Your task to perform on an android device: Search for vegetarian restaurants on Maps Image 0: 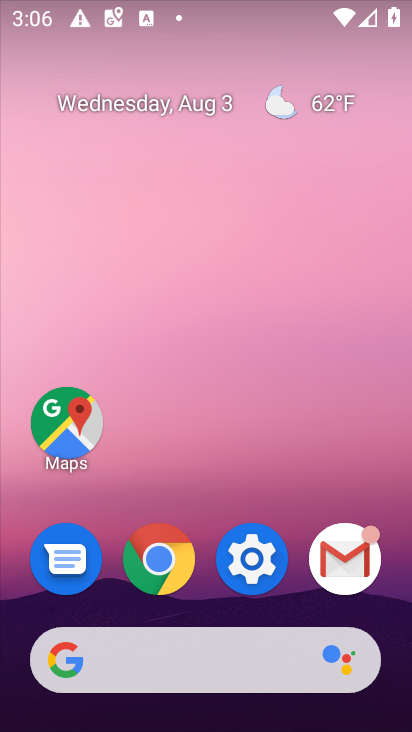
Step 0: click (94, 409)
Your task to perform on an android device: Search for vegetarian restaurants on Maps Image 1: 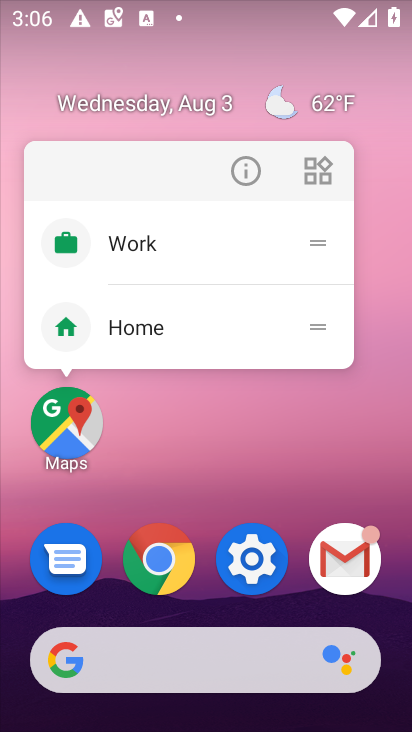
Step 1: click (85, 432)
Your task to perform on an android device: Search for vegetarian restaurants on Maps Image 2: 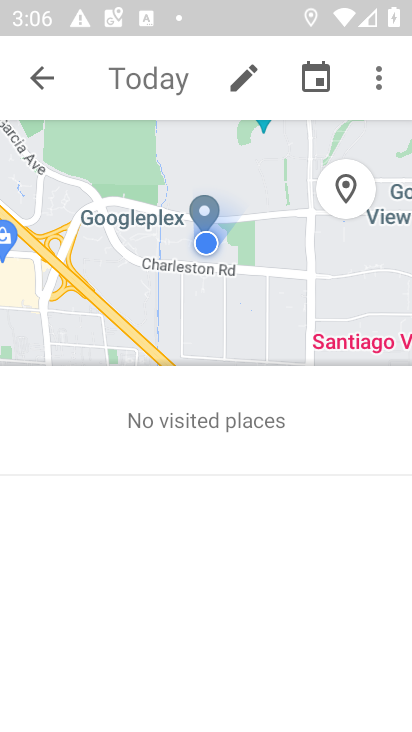
Step 2: click (49, 80)
Your task to perform on an android device: Search for vegetarian restaurants on Maps Image 3: 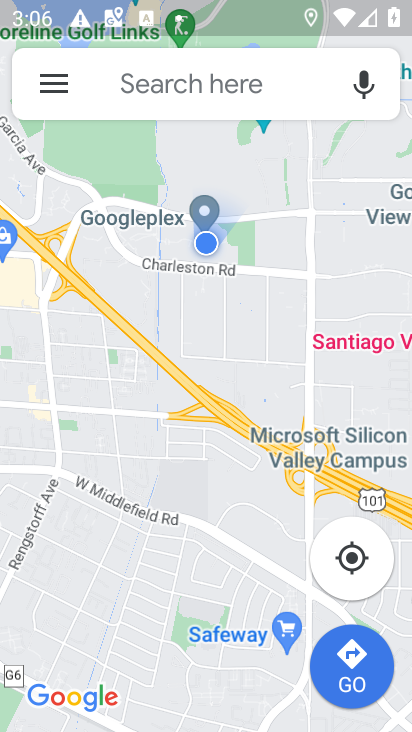
Step 3: click (249, 80)
Your task to perform on an android device: Search for vegetarian restaurants on Maps Image 4: 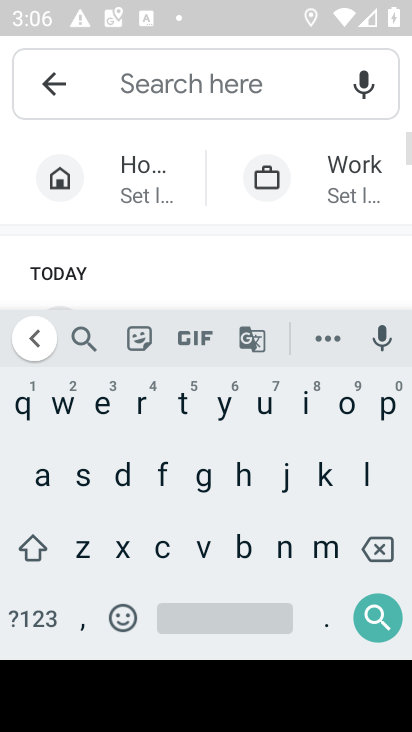
Step 4: click (209, 553)
Your task to perform on an android device: Search for vegetarian restaurants on Maps Image 5: 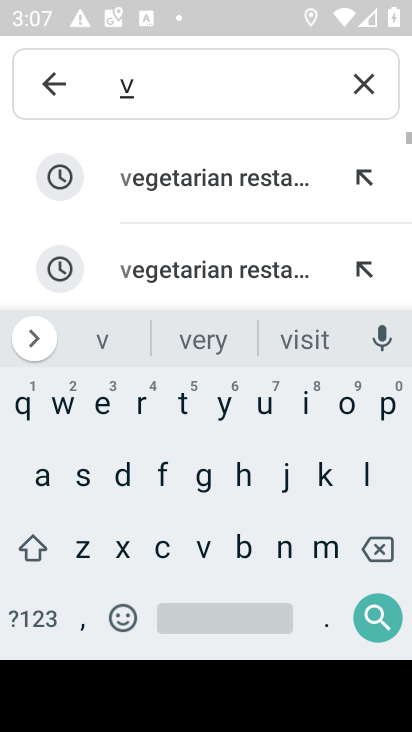
Step 5: click (175, 178)
Your task to perform on an android device: Search for vegetarian restaurants on Maps Image 6: 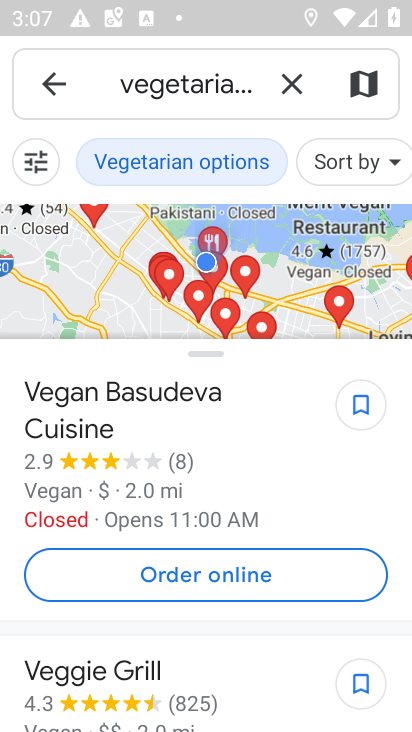
Step 6: task complete